Your task to perform on an android device: turn on bluetooth scan Image 0: 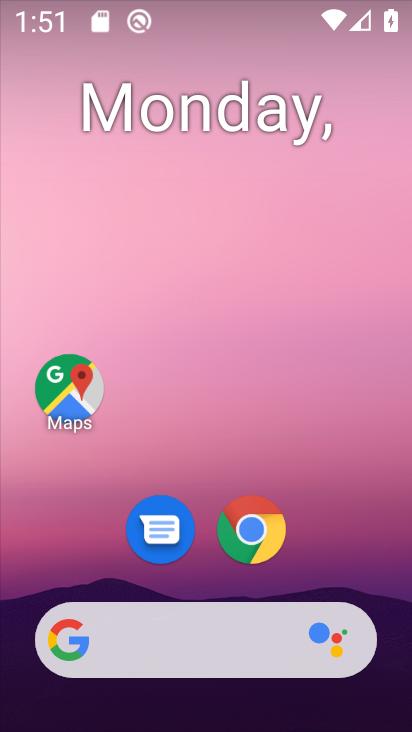
Step 0: drag from (68, 604) to (210, 162)
Your task to perform on an android device: turn on bluetooth scan Image 1: 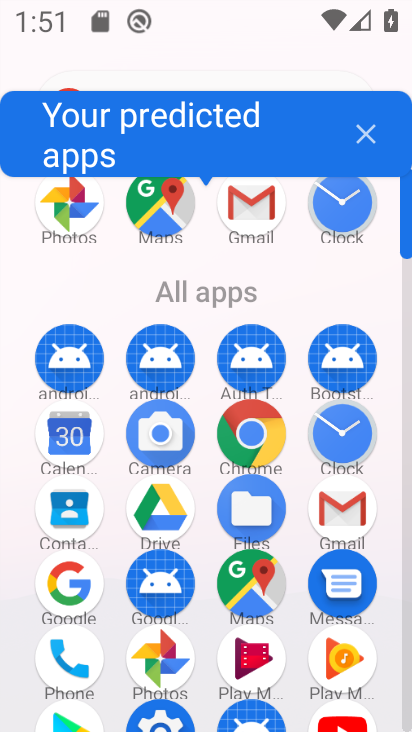
Step 1: drag from (211, 569) to (286, 295)
Your task to perform on an android device: turn on bluetooth scan Image 2: 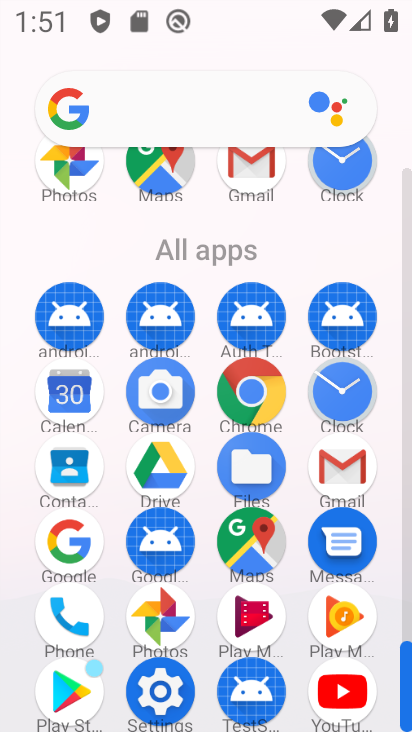
Step 2: click (155, 697)
Your task to perform on an android device: turn on bluetooth scan Image 3: 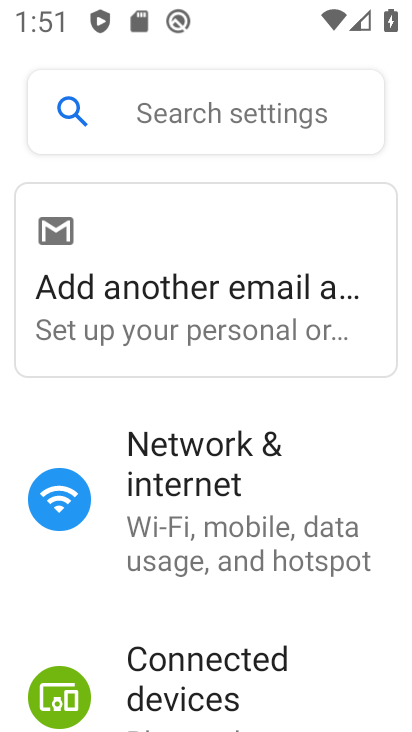
Step 3: drag from (225, 637) to (298, 351)
Your task to perform on an android device: turn on bluetooth scan Image 4: 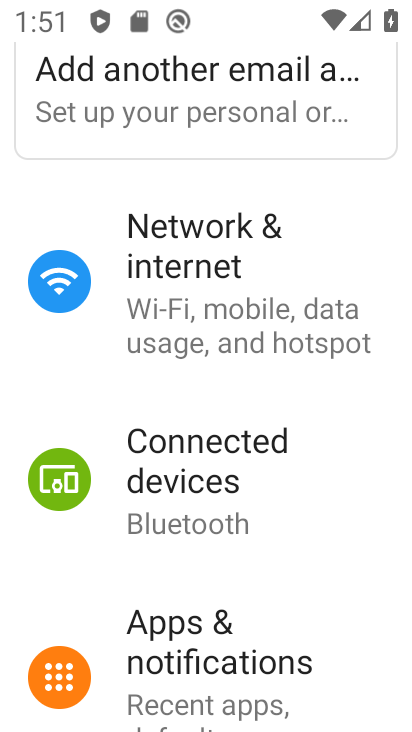
Step 4: click (274, 481)
Your task to perform on an android device: turn on bluetooth scan Image 5: 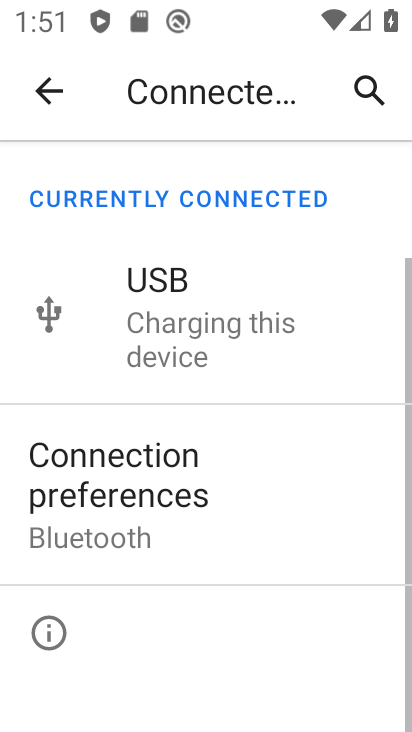
Step 5: click (206, 511)
Your task to perform on an android device: turn on bluetooth scan Image 6: 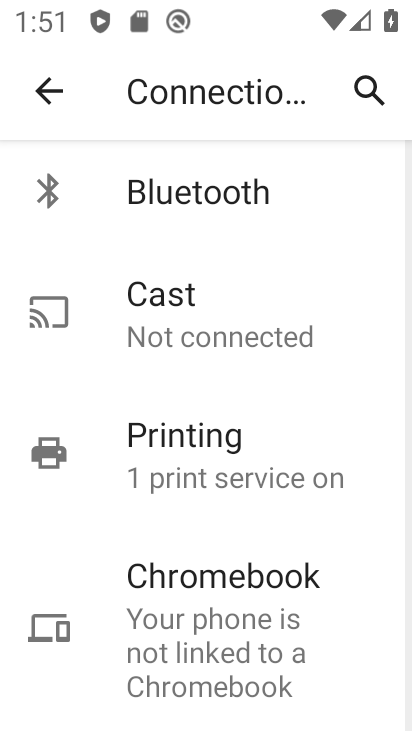
Step 6: click (287, 207)
Your task to perform on an android device: turn on bluetooth scan Image 7: 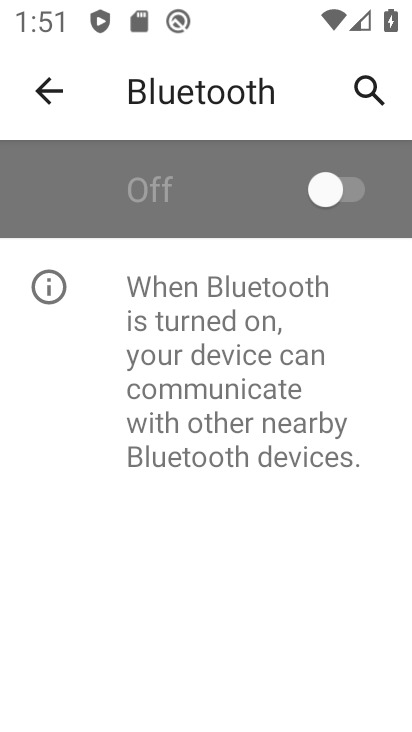
Step 7: click (361, 186)
Your task to perform on an android device: turn on bluetooth scan Image 8: 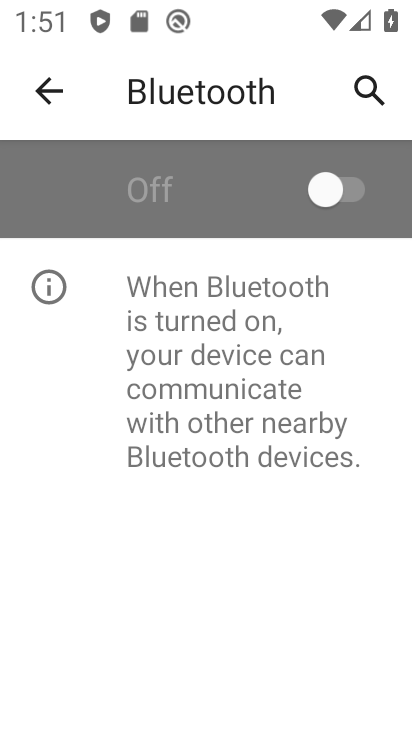
Step 8: click (361, 186)
Your task to perform on an android device: turn on bluetooth scan Image 9: 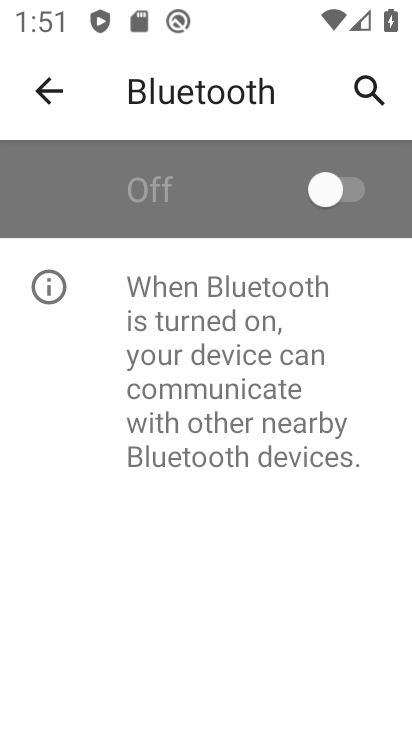
Step 9: click (361, 186)
Your task to perform on an android device: turn on bluetooth scan Image 10: 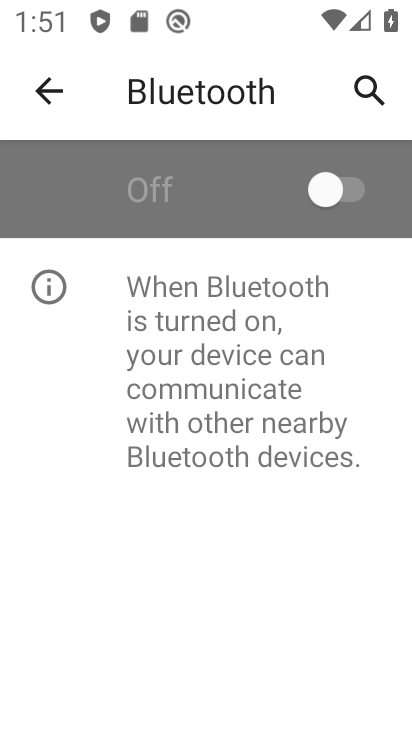
Step 10: click (361, 186)
Your task to perform on an android device: turn on bluetooth scan Image 11: 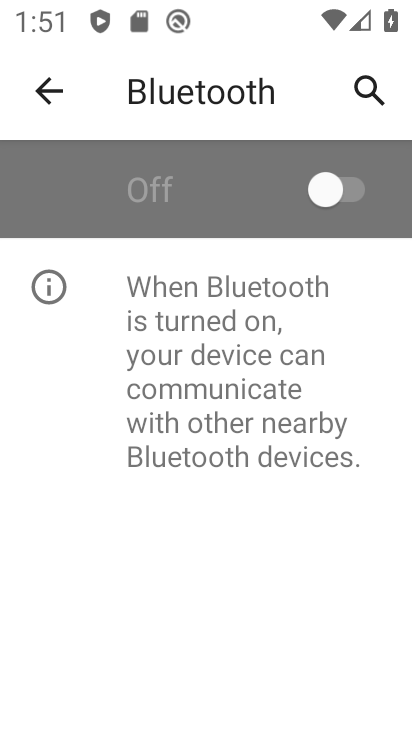
Step 11: click (361, 186)
Your task to perform on an android device: turn on bluetooth scan Image 12: 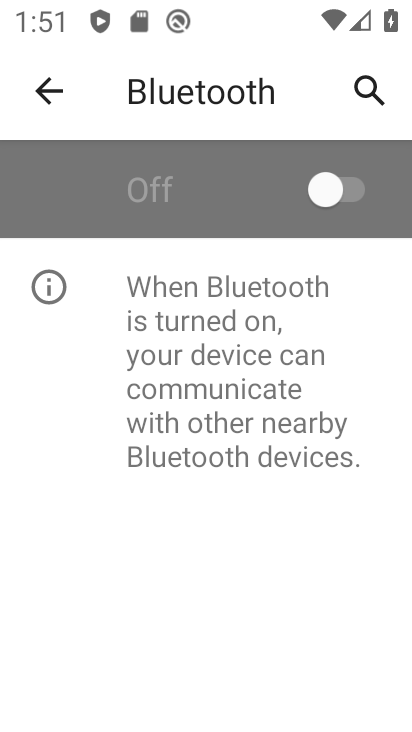
Step 12: click (361, 186)
Your task to perform on an android device: turn on bluetooth scan Image 13: 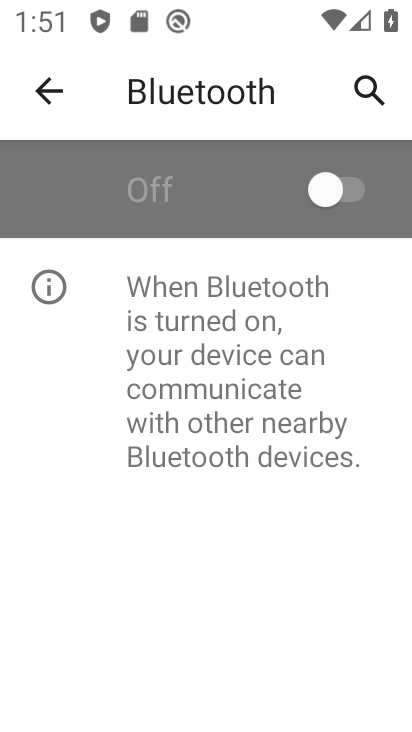
Step 13: click (361, 186)
Your task to perform on an android device: turn on bluetooth scan Image 14: 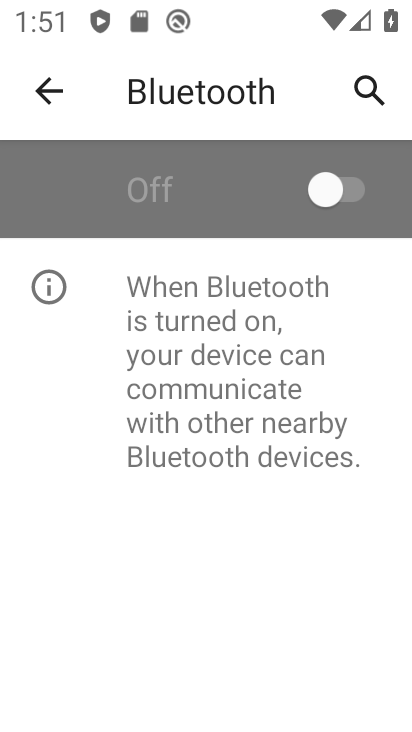
Step 14: task complete